Your task to perform on an android device: Open Chrome and go to settings Image 0: 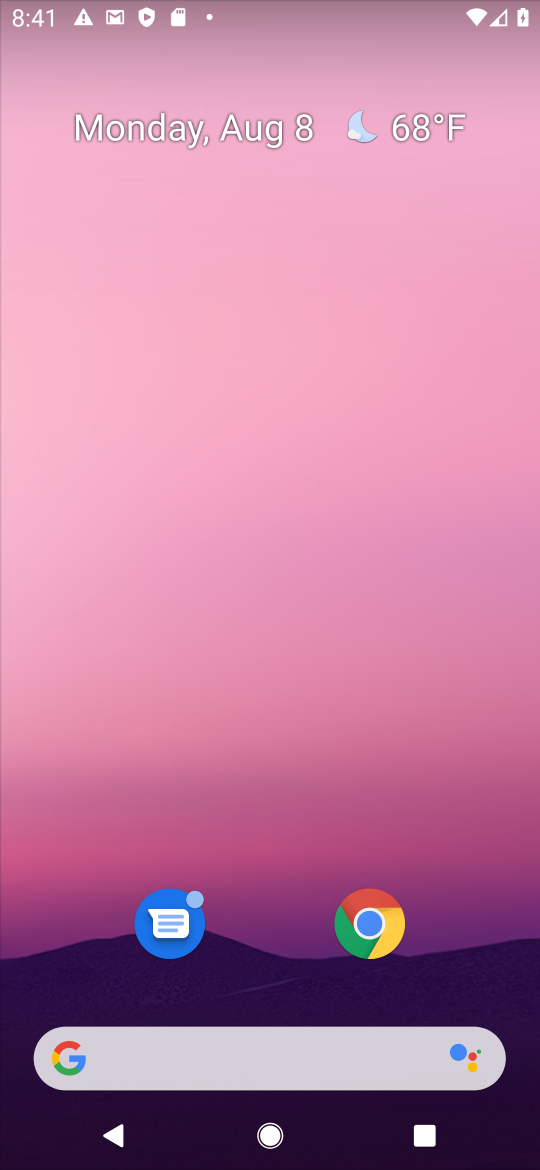
Step 0: click (377, 925)
Your task to perform on an android device: Open Chrome and go to settings Image 1: 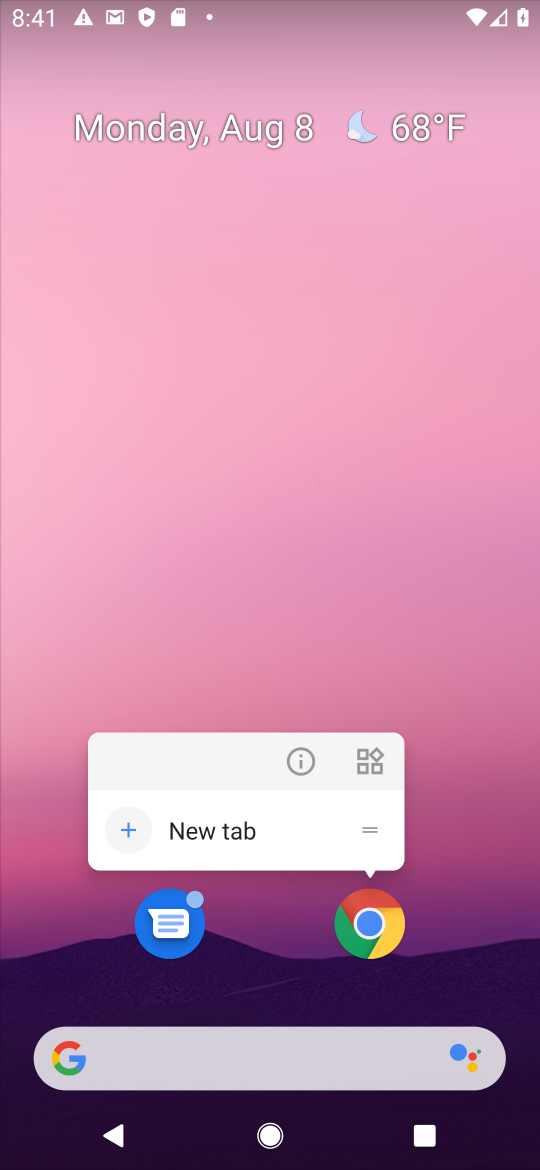
Step 1: click (377, 919)
Your task to perform on an android device: Open Chrome and go to settings Image 2: 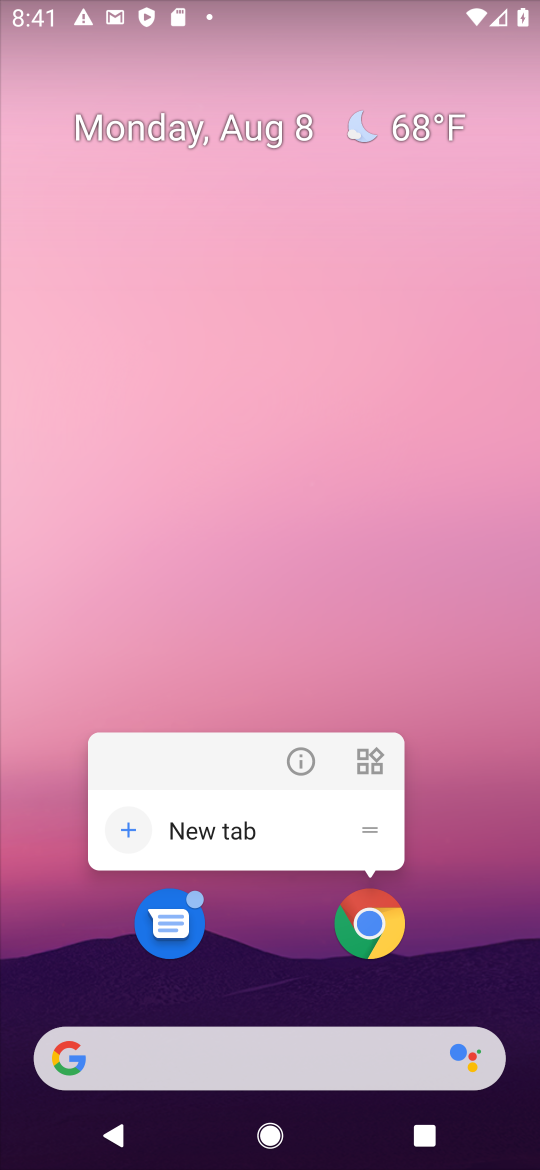
Step 2: click (379, 923)
Your task to perform on an android device: Open Chrome and go to settings Image 3: 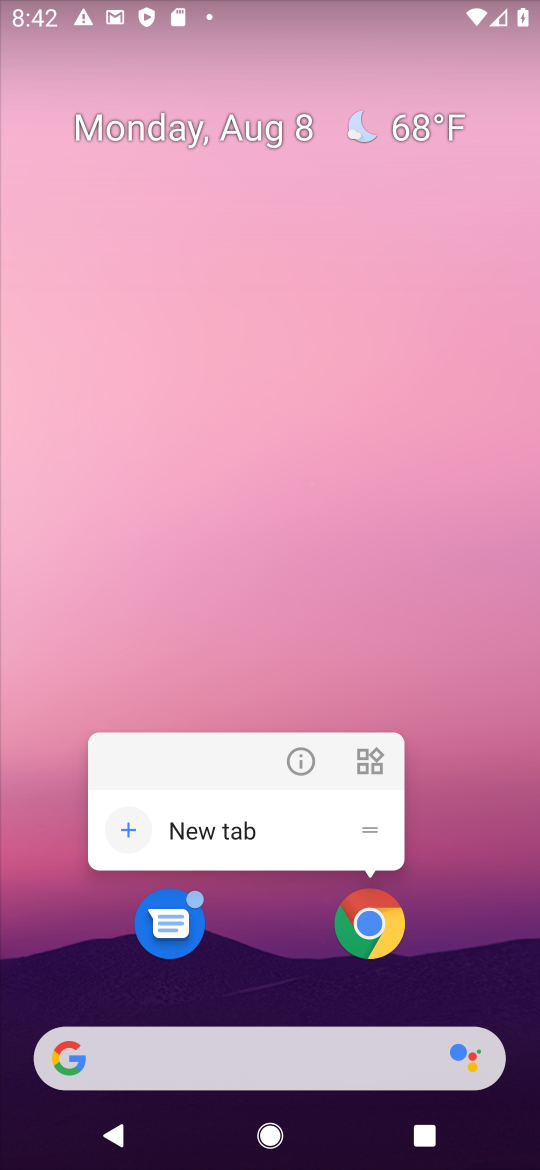
Step 3: click (379, 928)
Your task to perform on an android device: Open Chrome and go to settings Image 4: 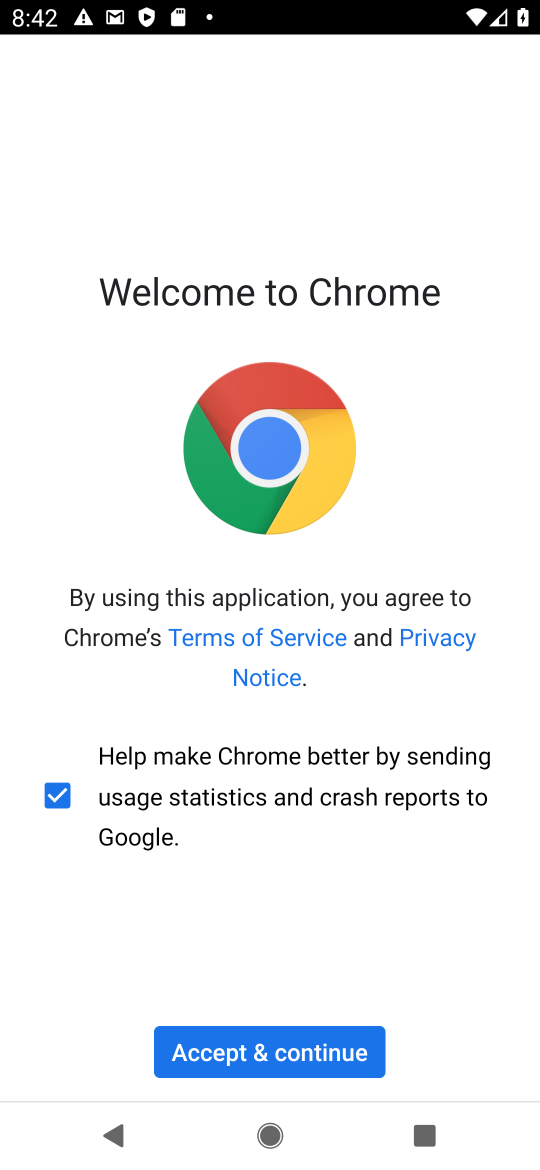
Step 4: click (297, 1050)
Your task to perform on an android device: Open Chrome and go to settings Image 5: 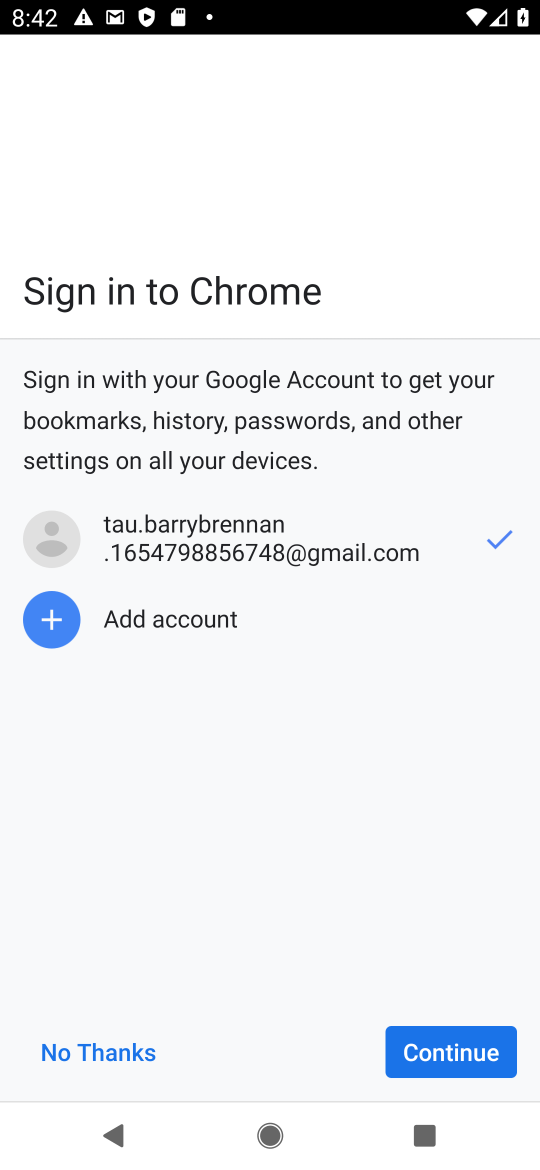
Step 5: click (499, 1049)
Your task to perform on an android device: Open Chrome and go to settings Image 6: 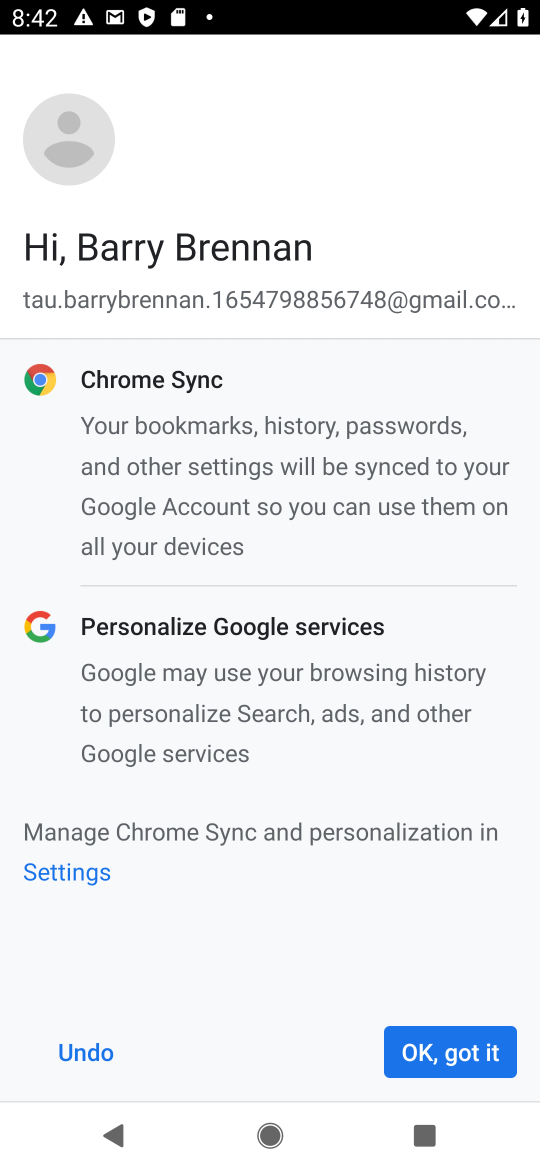
Step 6: click (499, 1049)
Your task to perform on an android device: Open Chrome and go to settings Image 7: 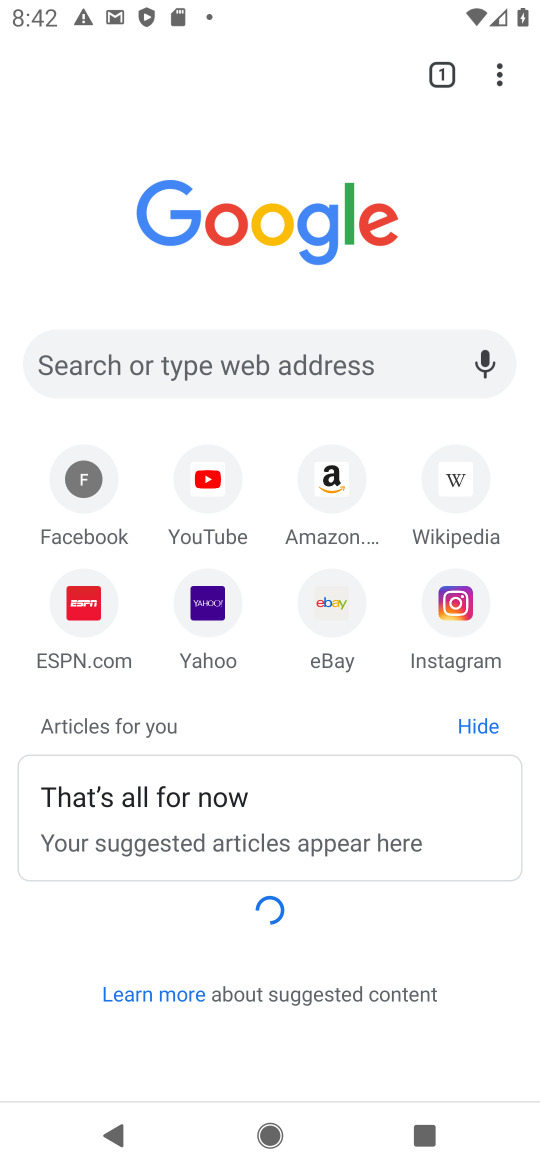
Step 7: task complete